Your task to perform on an android device: turn on wifi Image 0: 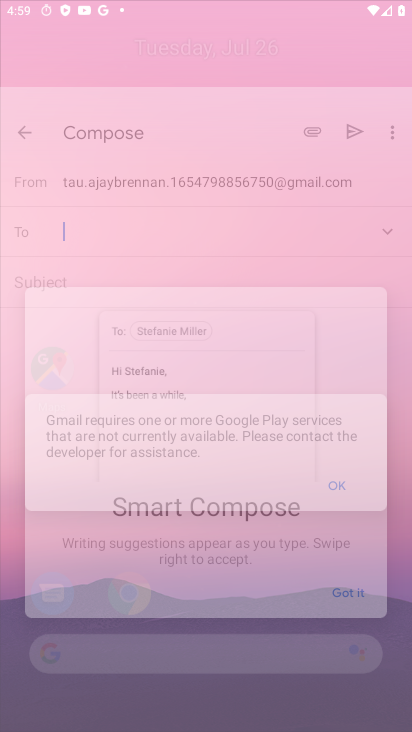
Step 0: drag from (294, 609) to (300, 50)
Your task to perform on an android device: turn on wifi Image 1: 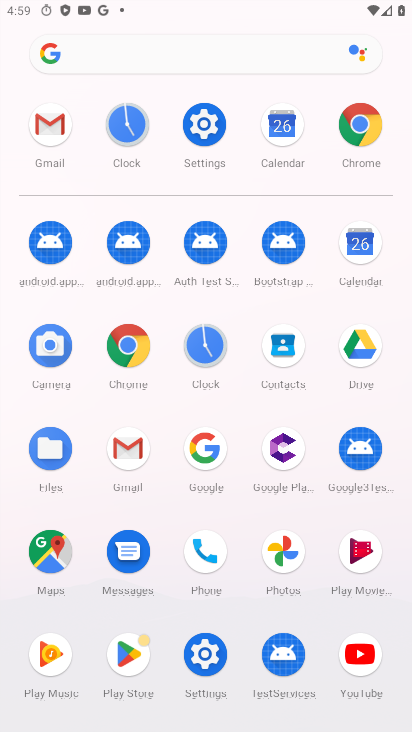
Step 1: click (215, 115)
Your task to perform on an android device: turn on wifi Image 2: 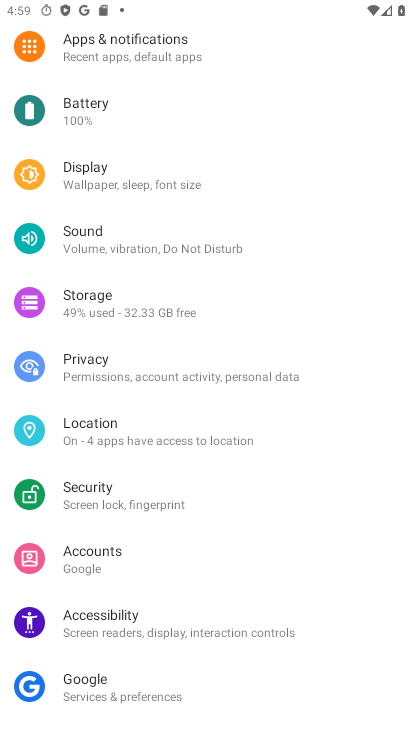
Step 2: drag from (177, 117) to (153, 441)
Your task to perform on an android device: turn on wifi Image 3: 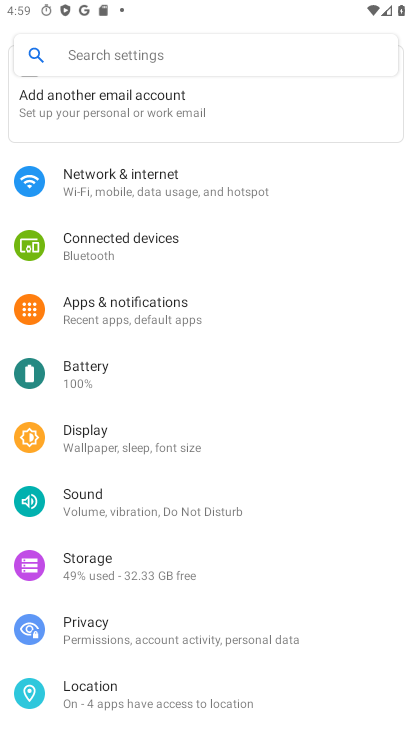
Step 3: click (146, 200)
Your task to perform on an android device: turn on wifi Image 4: 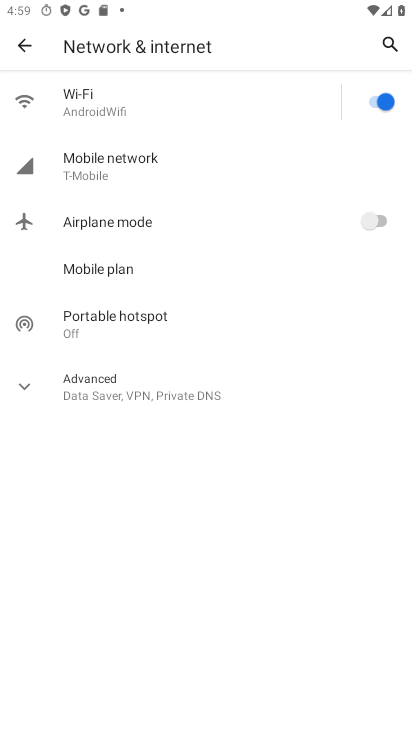
Step 4: task complete